Your task to perform on an android device: check data usage Image 0: 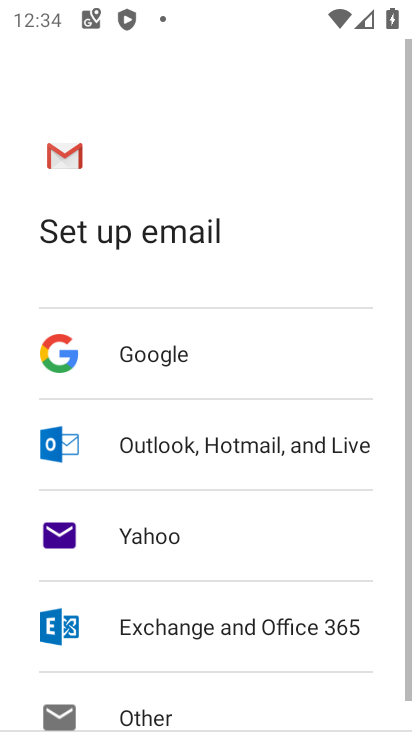
Step 0: press home button
Your task to perform on an android device: check data usage Image 1: 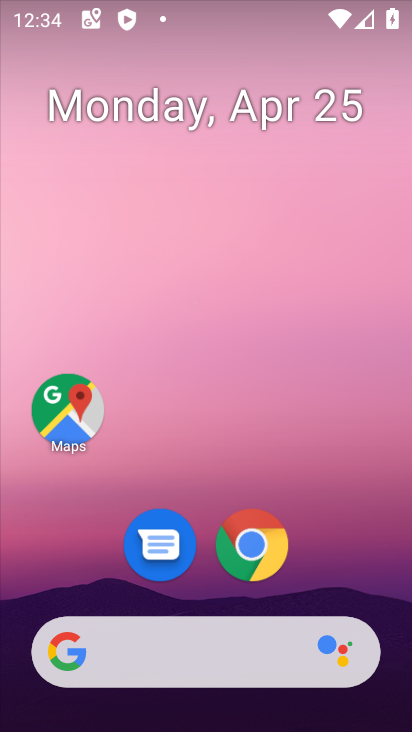
Step 1: drag from (348, 541) to (293, 36)
Your task to perform on an android device: check data usage Image 2: 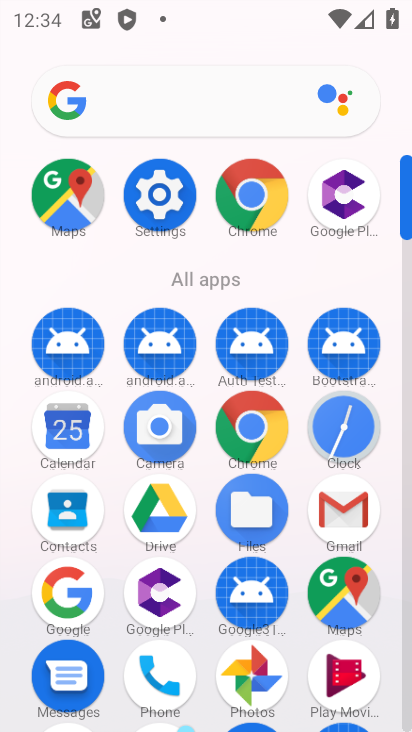
Step 2: click (177, 190)
Your task to perform on an android device: check data usage Image 3: 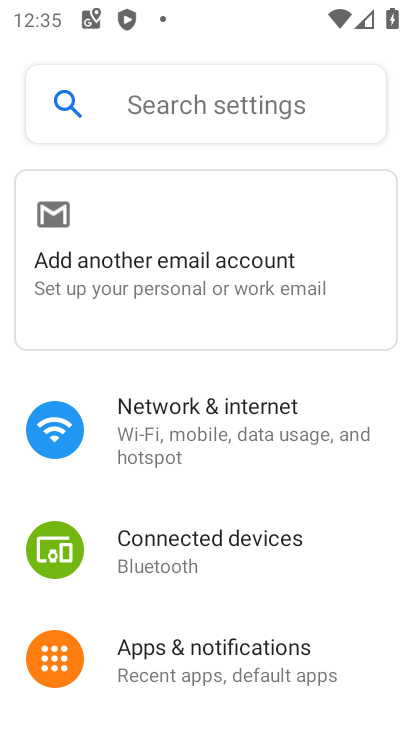
Step 3: click (210, 431)
Your task to perform on an android device: check data usage Image 4: 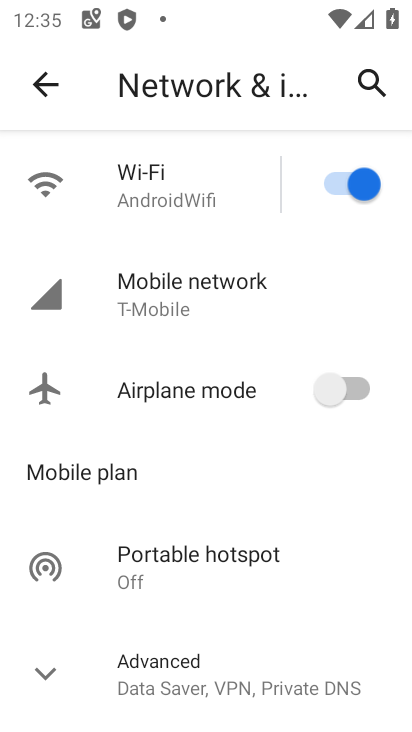
Step 4: click (131, 288)
Your task to perform on an android device: check data usage Image 5: 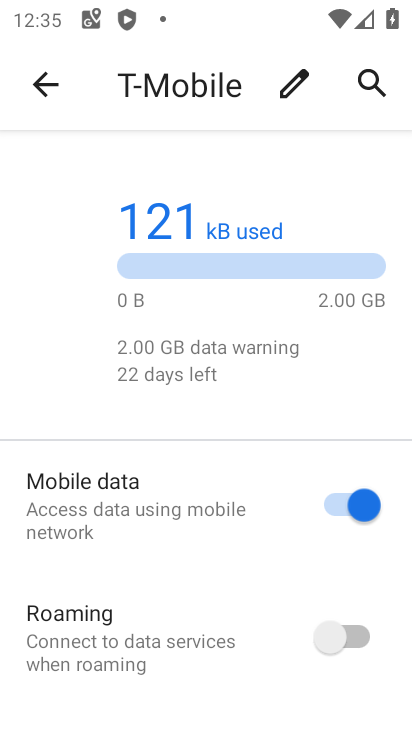
Step 5: drag from (224, 589) to (276, 258)
Your task to perform on an android device: check data usage Image 6: 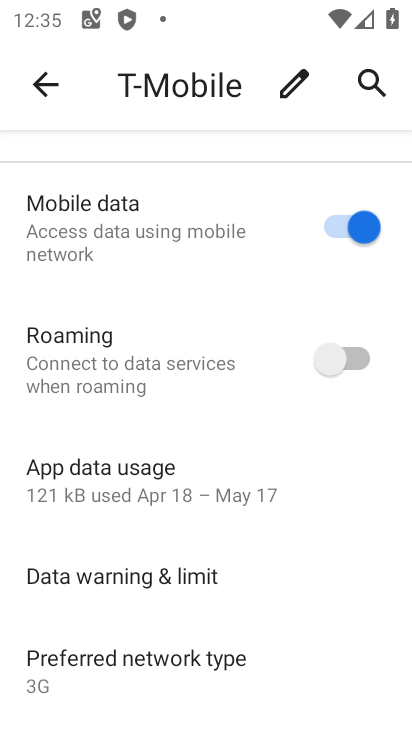
Step 6: click (133, 473)
Your task to perform on an android device: check data usage Image 7: 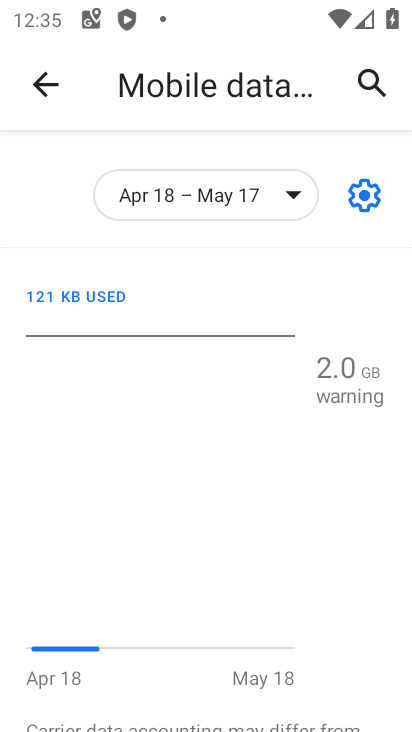
Step 7: task complete